Your task to perform on an android device: install app "NewsBreak: Local News & Alerts" Image 0: 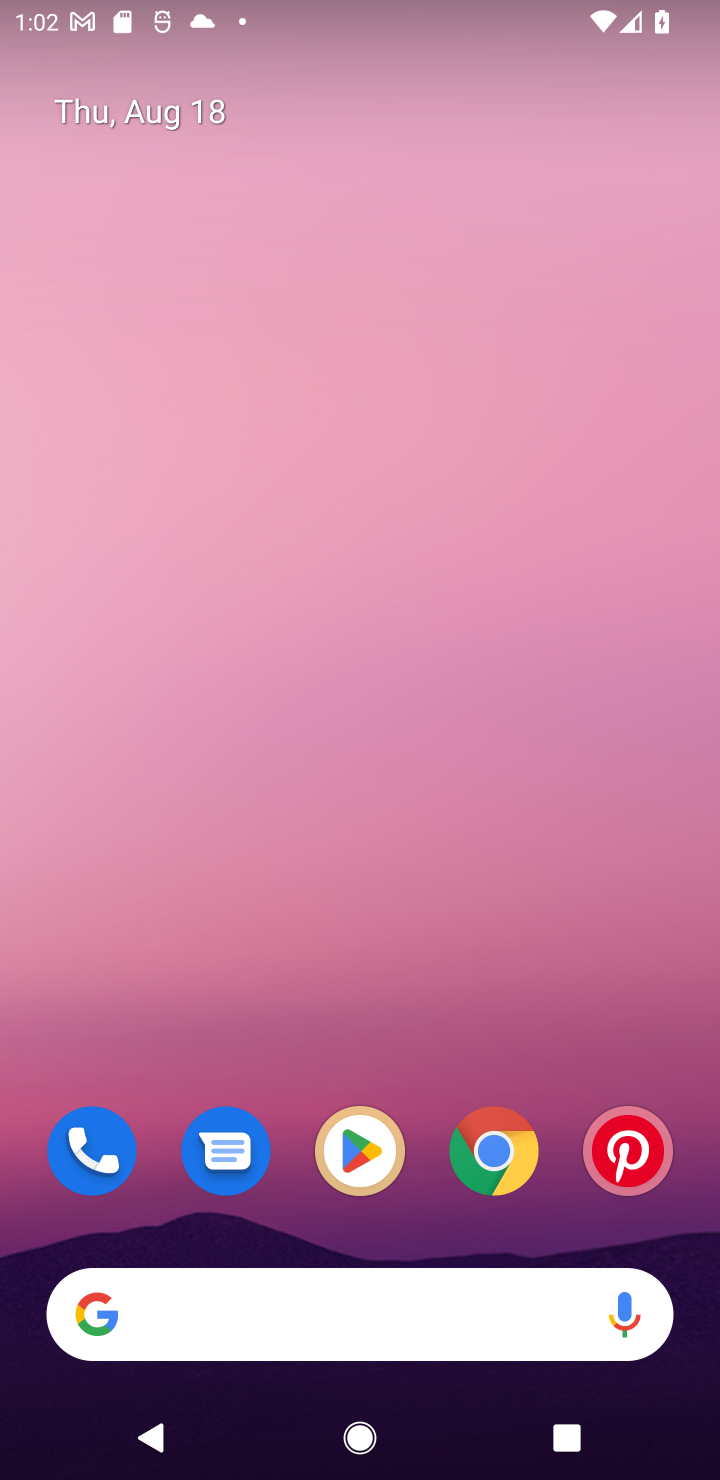
Step 0: click (364, 1158)
Your task to perform on an android device: install app "NewsBreak: Local News & Alerts" Image 1: 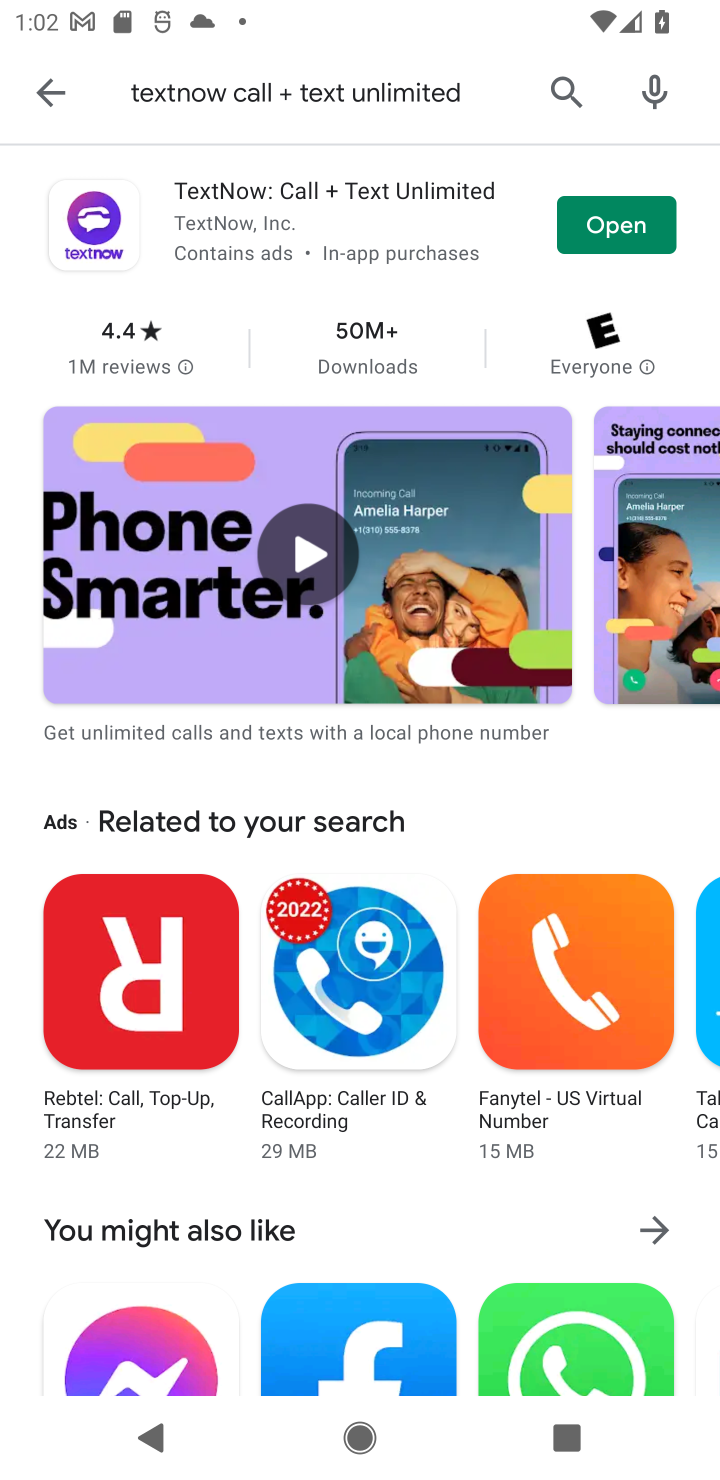
Step 1: click (37, 90)
Your task to perform on an android device: install app "NewsBreak: Local News & Alerts" Image 2: 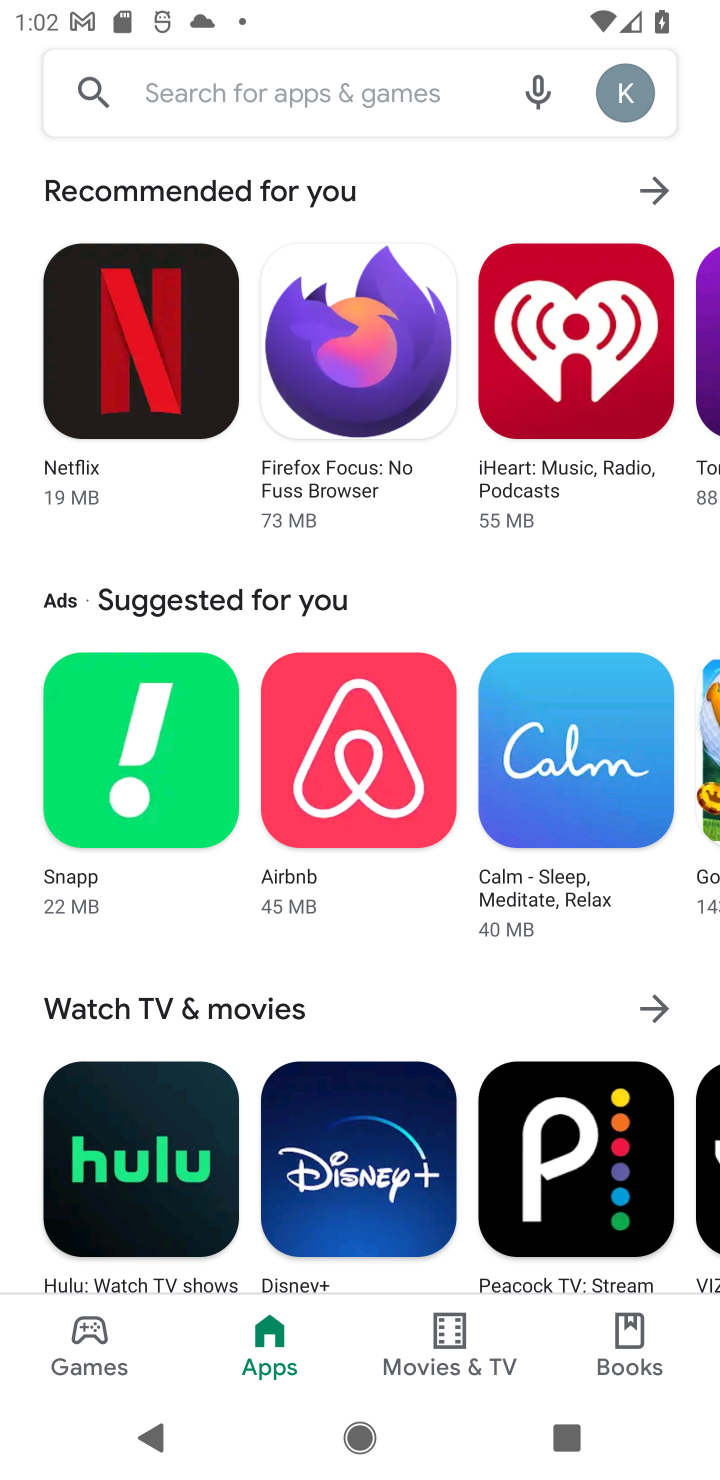
Step 2: click (220, 88)
Your task to perform on an android device: install app "NewsBreak: Local News & Alerts" Image 3: 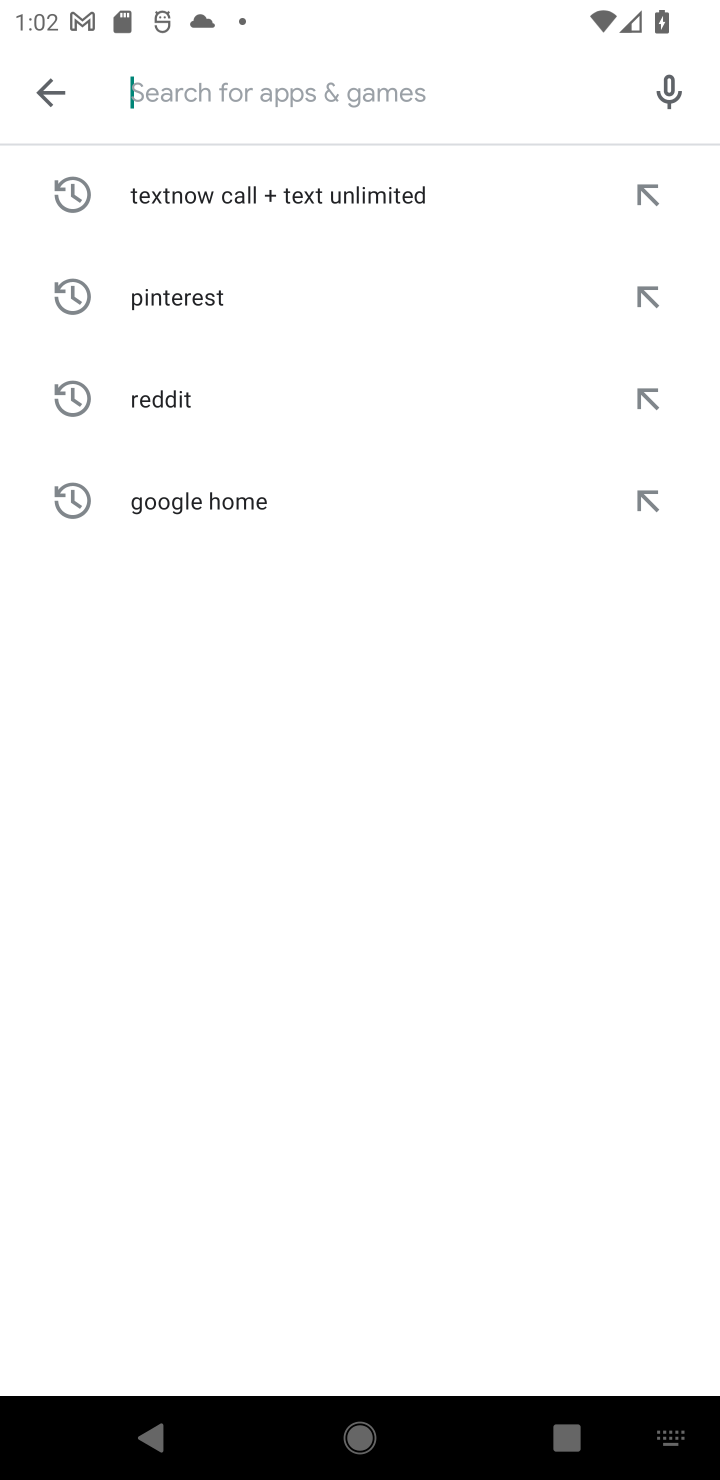
Step 3: type "NewsBreak: Local News & Alerts"
Your task to perform on an android device: install app "NewsBreak: Local News & Alerts" Image 4: 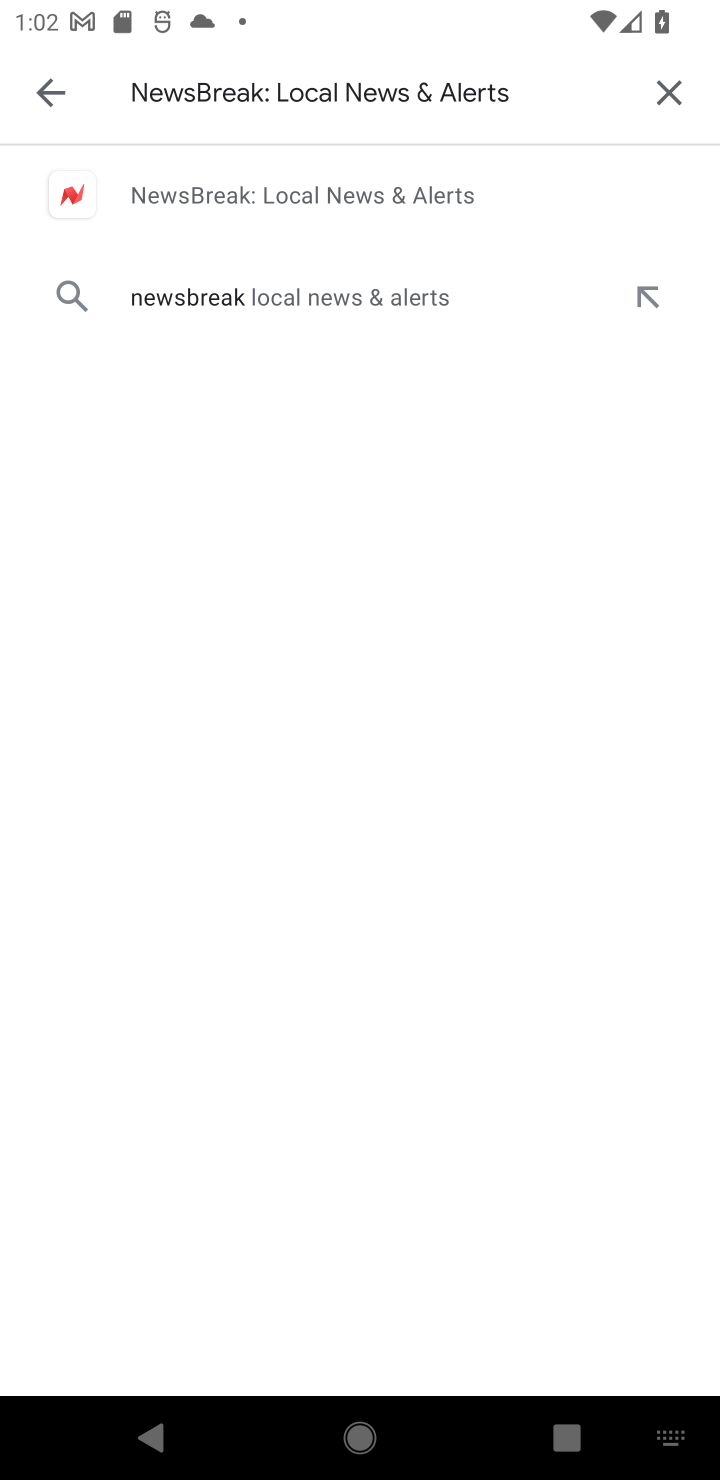
Step 4: click (282, 186)
Your task to perform on an android device: install app "NewsBreak: Local News & Alerts" Image 5: 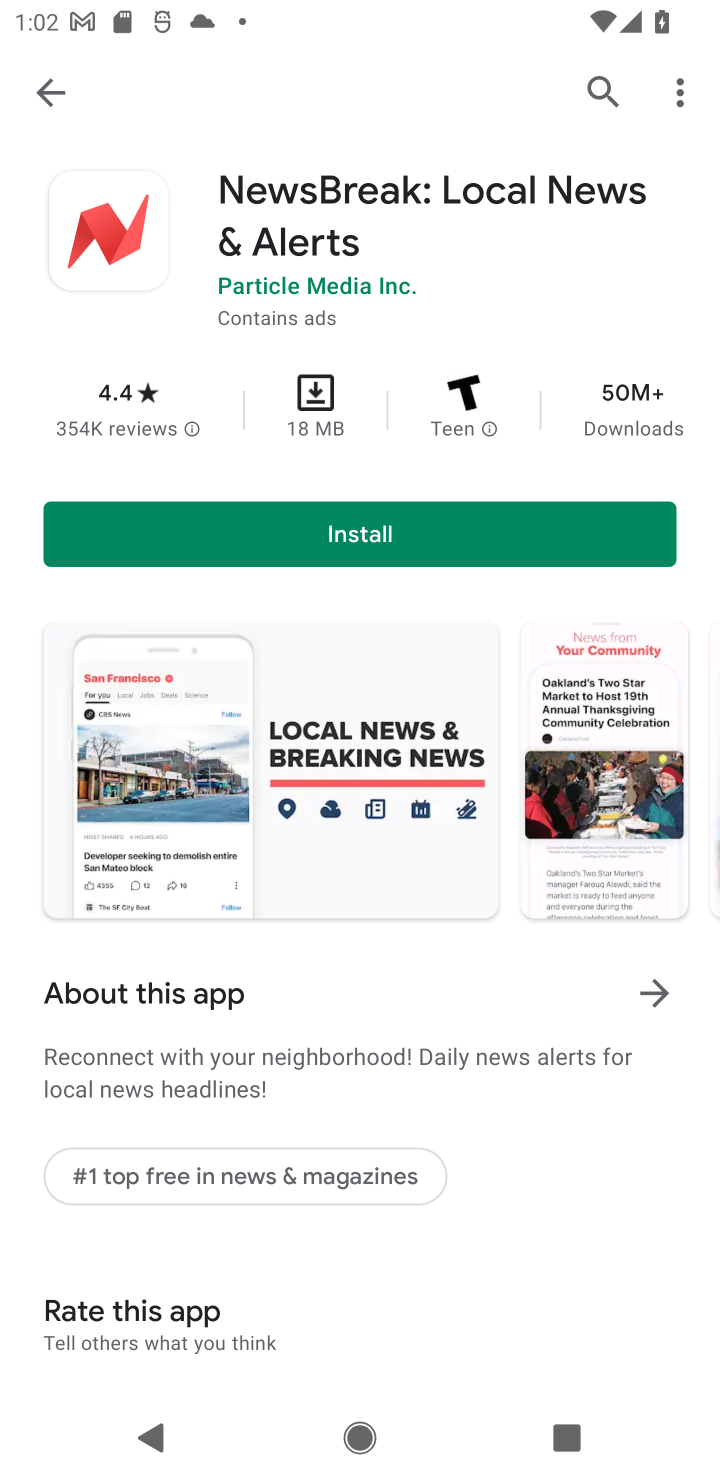
Step 5: click (357, 529)
Your task to perform on an android device: install app "NewsBreak: Local News & Alerts" Image 6: 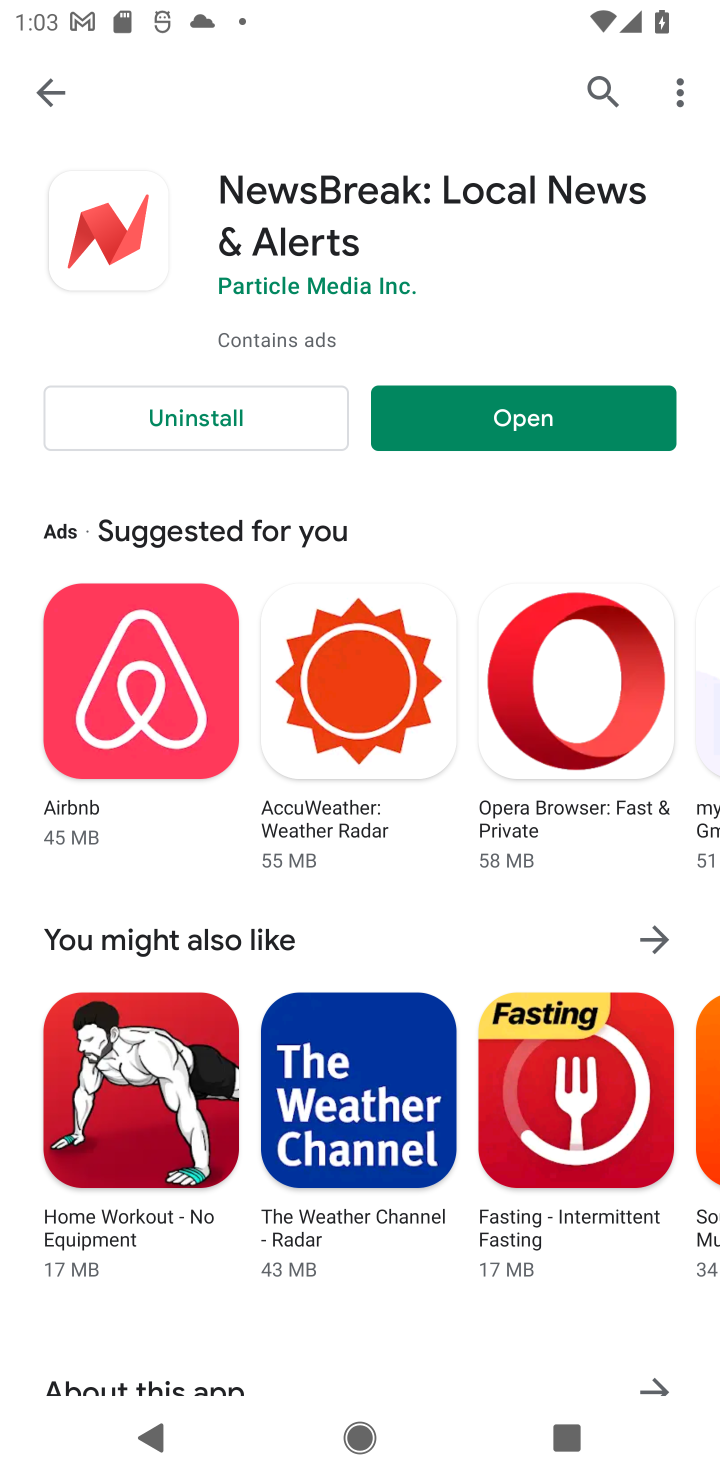
Step 6: click (446, 394)
Your task to perform on an android device: install app "NewsBreak: Local News & Alerts" Image 7: 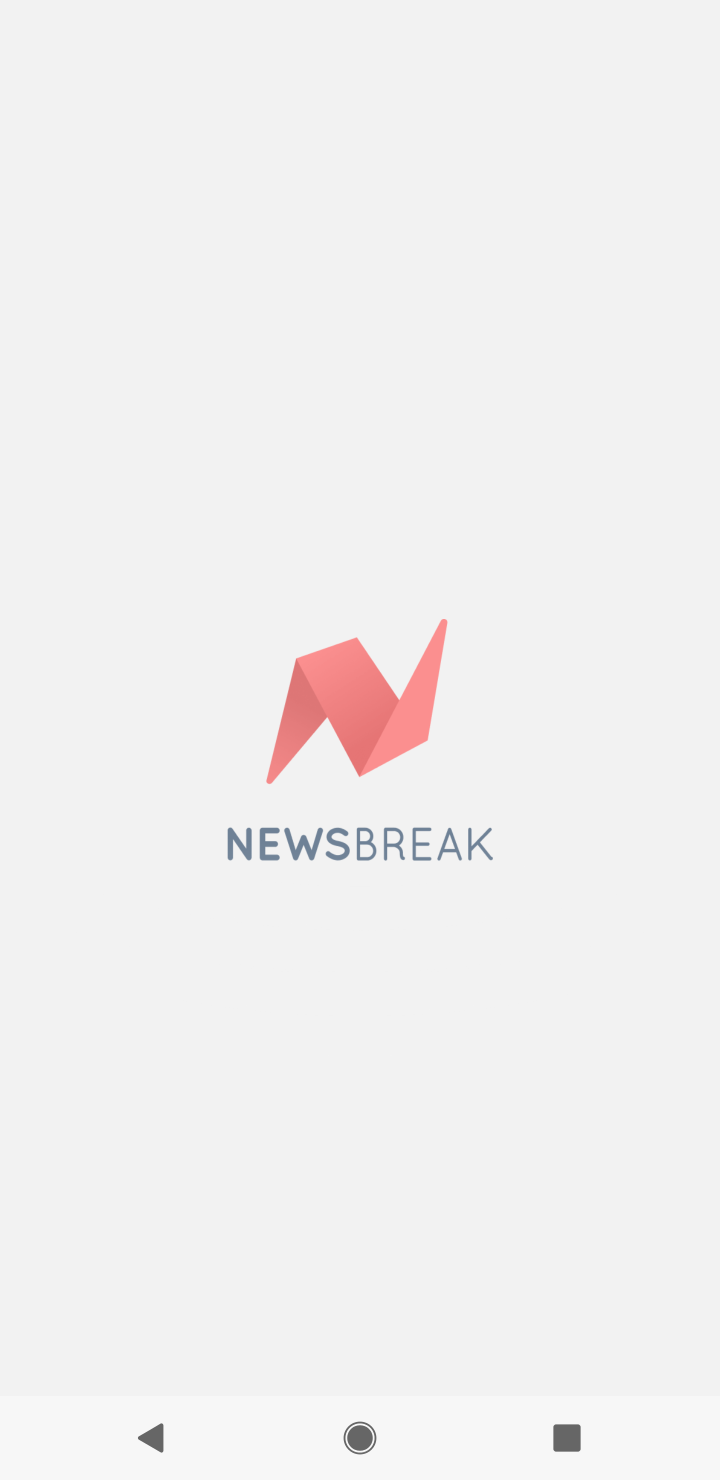
Step 7: task complete